Your task to perform on an android device: Show me popular videos on Youtube Image 0: 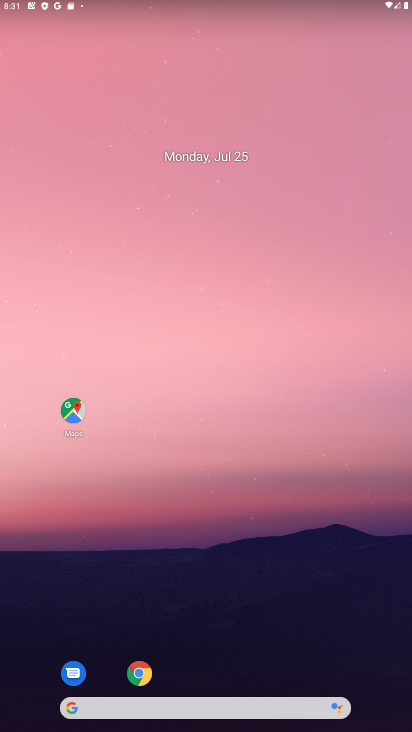
Step 0: drag from (188, 669) to (176, 65)
Your task to perform on an android device: Show me popular videos on Youtube Image 1: 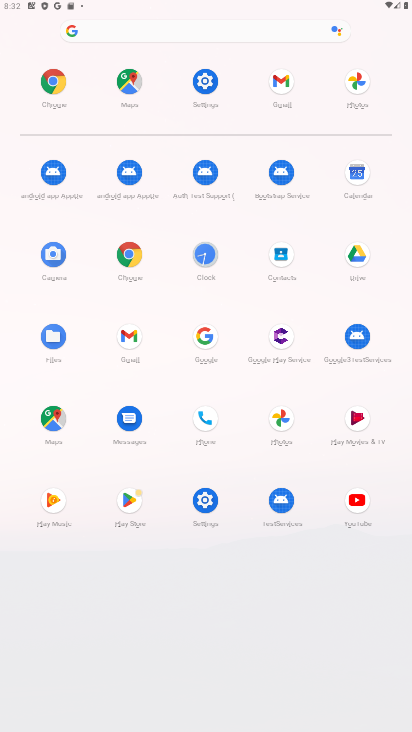
Step 1: click (359, 511)
Your task to perform on an android device: Show me popular videos on Youtube Image 2: 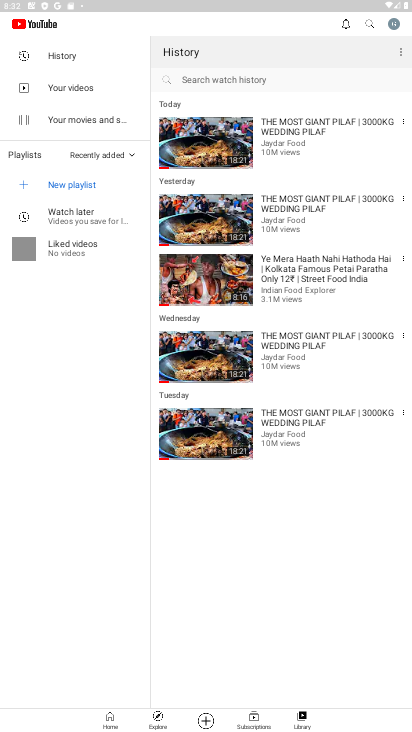
Step 2: task complete